Your task to perform on an android device: read, delete, or share a saved page in the chrome app Image 0: 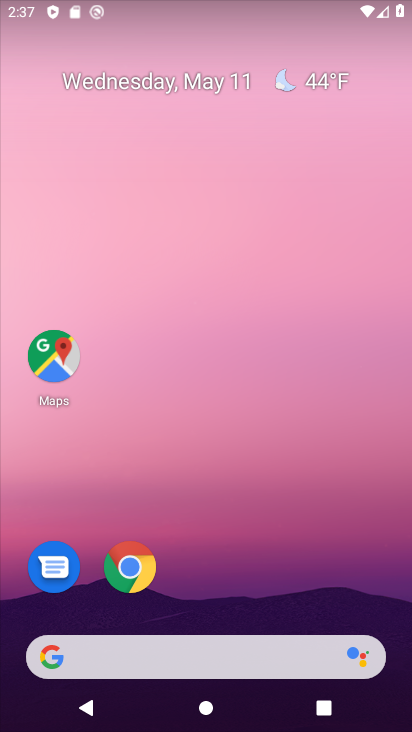
Step 0: drag from (247, 514) to (179, 47)
Your task to perform on an android device: read, delete, or share a saved page in the chrome app Image 1: 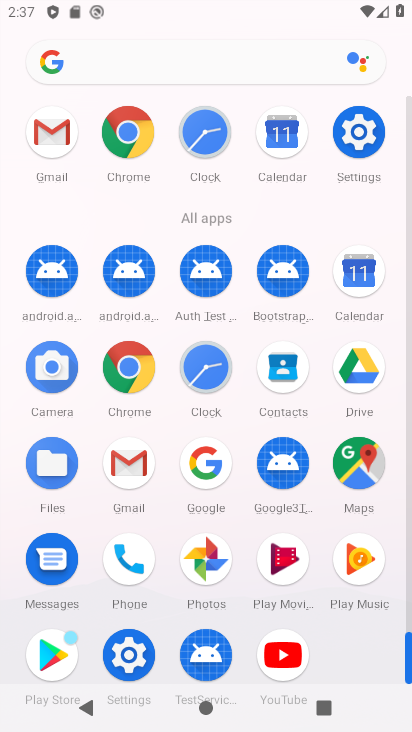
Step 1: drag from (8, 569) to (22, 169)
Your task to perform on an android device: read, delete, or share a saved page in the chrome app Image 2: 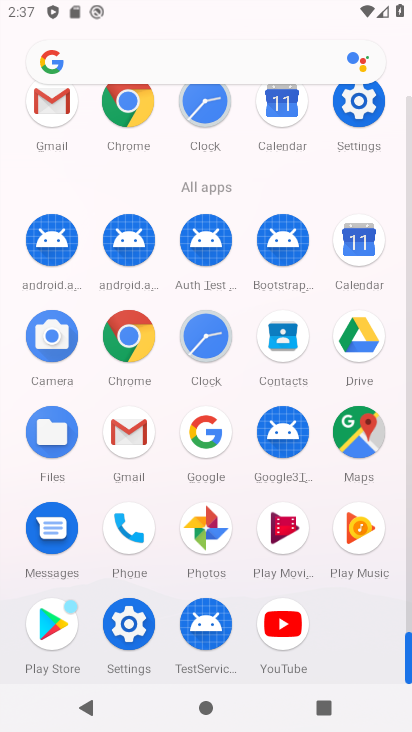
Step 2: click (122, 337)
Your task to perform on an android device: read, delete, or share a saved page in the chrome app Image 3: 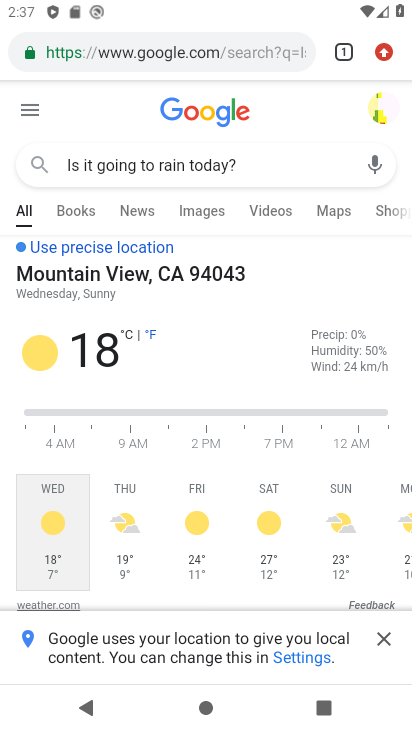
Step 3: task complete